Your task to perform on an android device: check data usage Image 0: 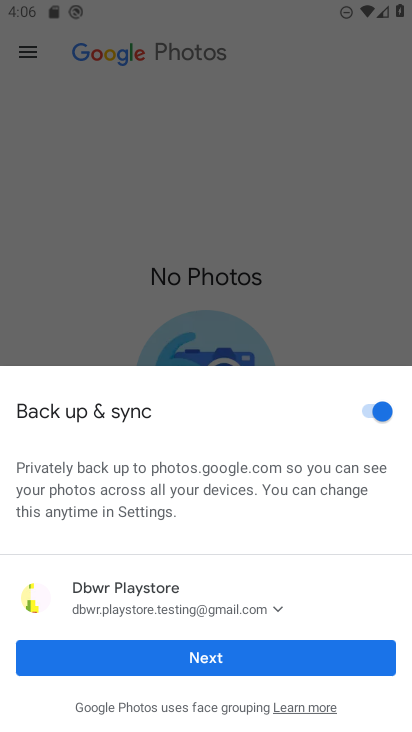
Step 0: press back button
Your task to perform on an android device: check data usage Image 1: 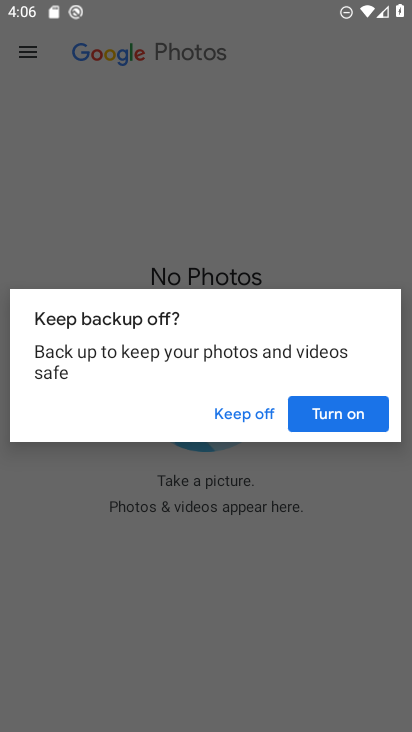
Step 1: press back button
Your task to perform on an android device: check data usage Image 2: 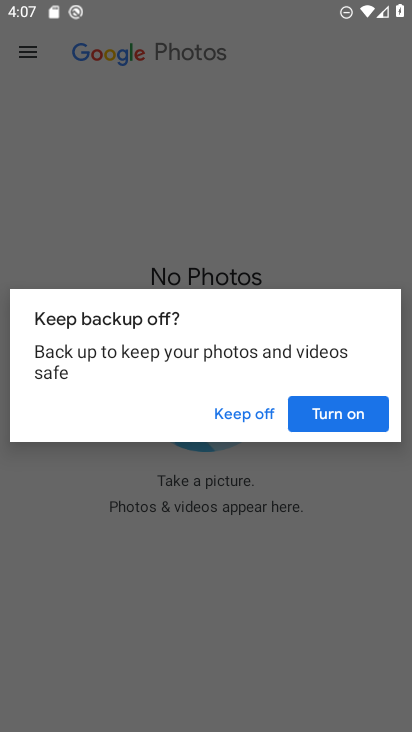
Step 2: press back button
Your task to perform on an android device: check data usage Image 3: 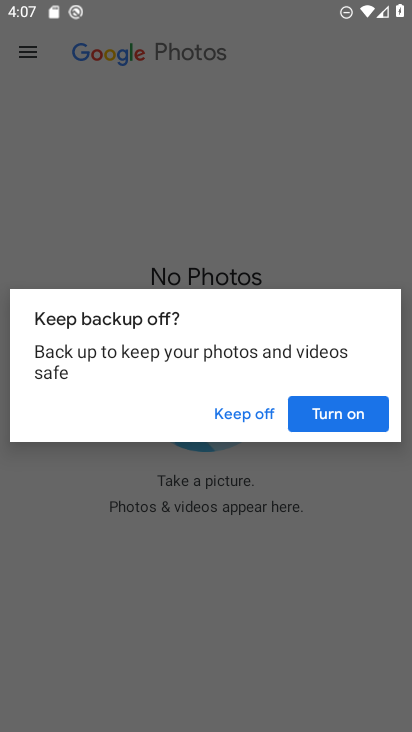
Step 3: press back button
Your task to perform on an android device: check data usage Image 4: 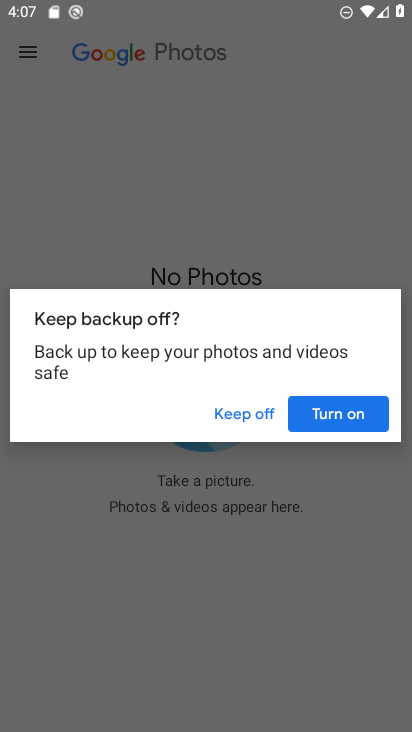
Step 4: press home button
Your task to perform on an android device: check data usage Image 5: 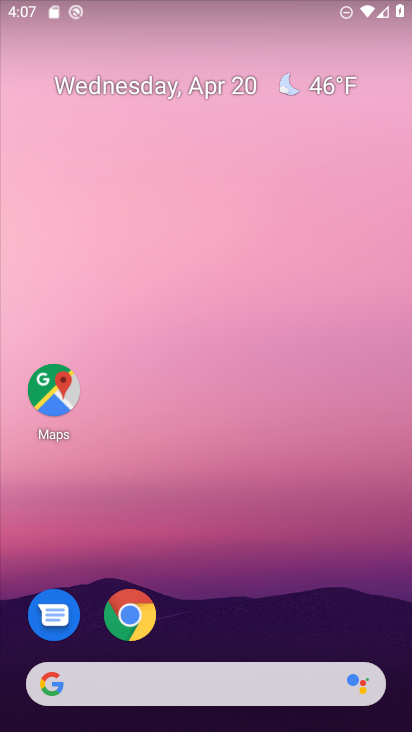
Step 5: drag from (238, 556) to (344, 18)
Your task to perform on an android device: check data usage Image 6: 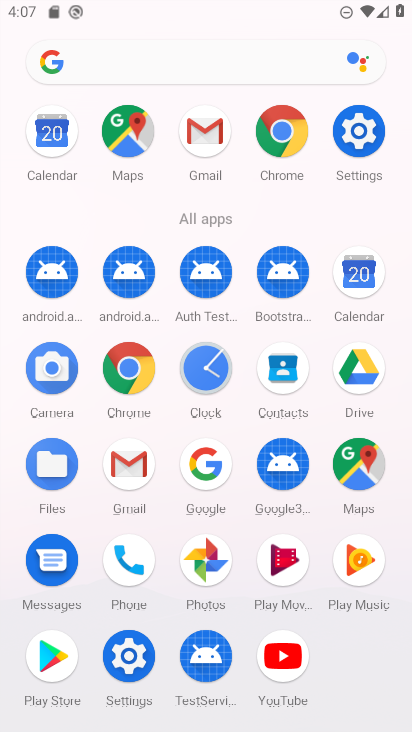
Step 6: click (372, 126)
Your task to perform on an android device: check data usage Image 7: 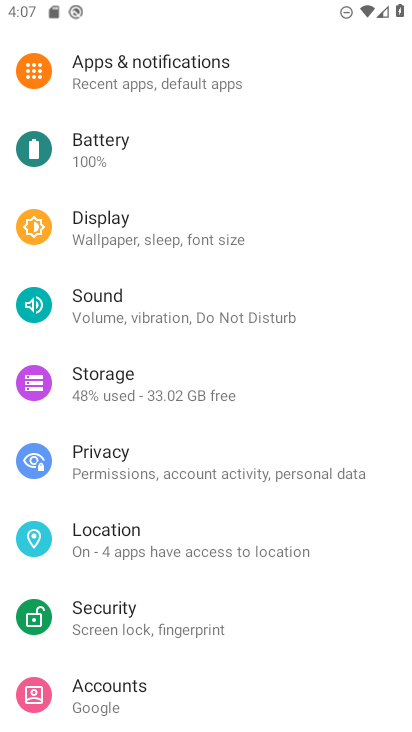
Step 7: drag from (206, 145) to (201, 625)
Your task to perform on an android device: check data usage Image 8: 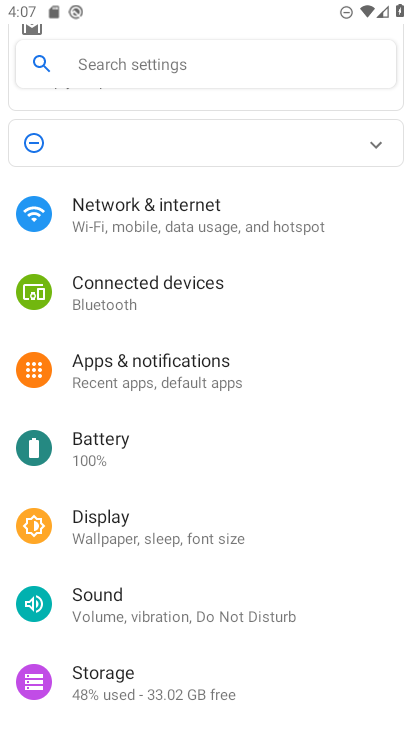
Step 8: click (226, 221)
Your task to perform on an android device: check data usage Image 9: 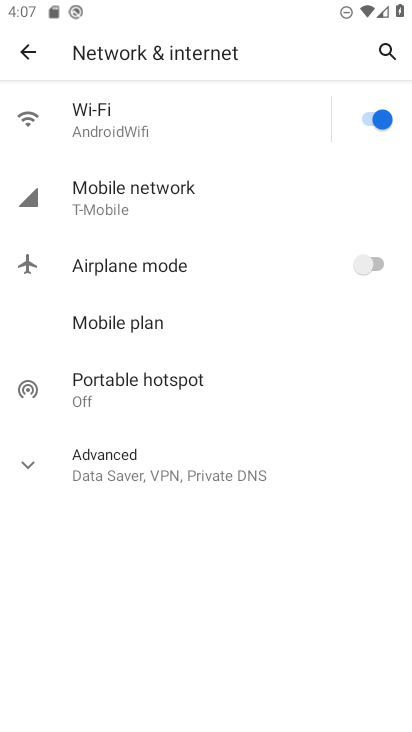
Step 9: click (171, 204)
Your task to perform on an android device: check data usage Image 10: 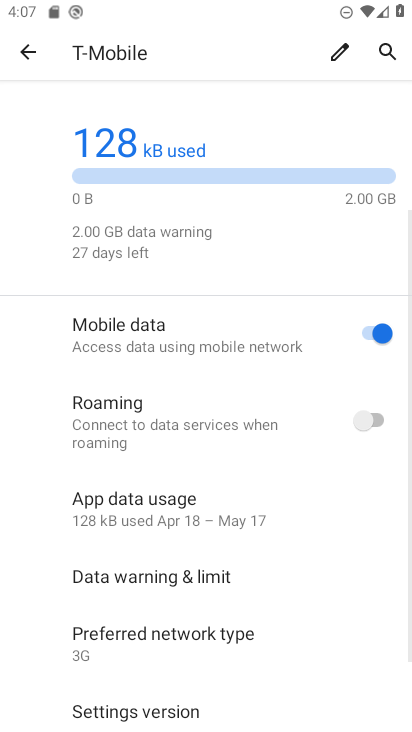
Step 10: click (188, 523)
Your task to perform on an android device: check data usage Image 11: 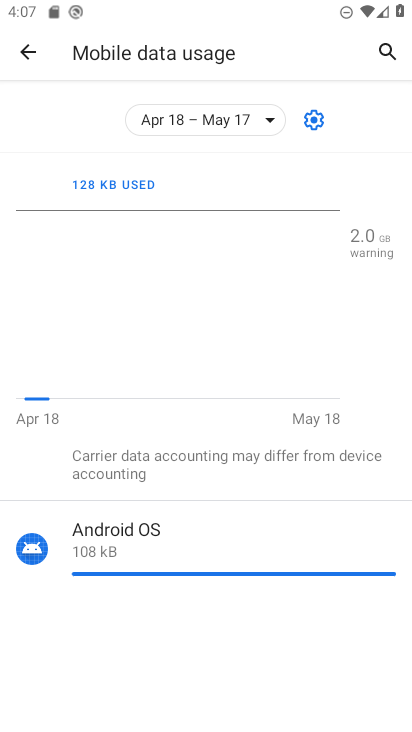
Step 11: task complete